Your task to perform on an android device: Check the weather Image 0: 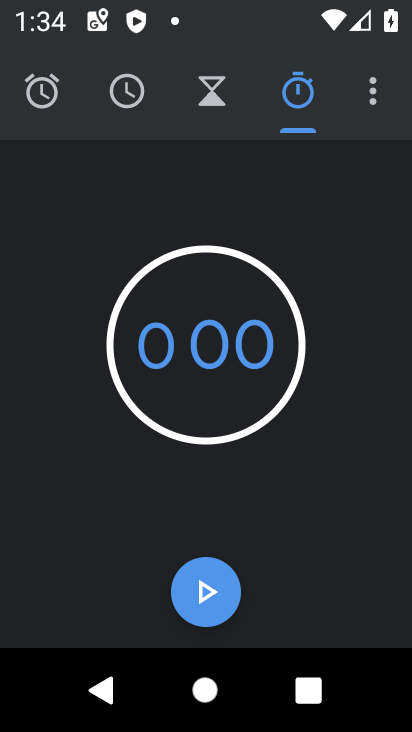
Step 0: press home button
Your task to perform on an android device: Check the weather Image 1: 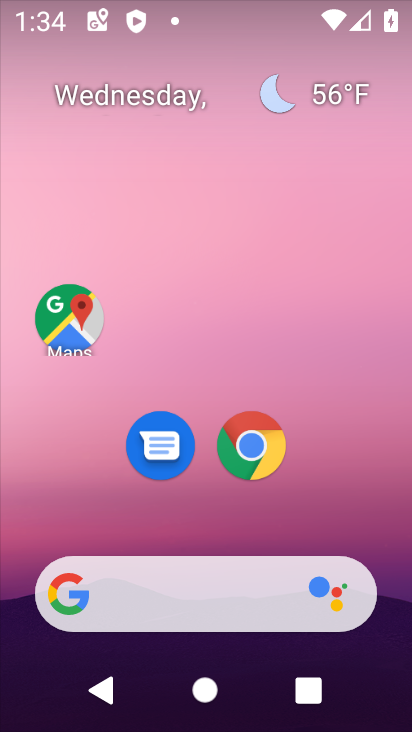
Step 1: click (226, 565)
Your task to perform on an android device: Check the weather Image 2: 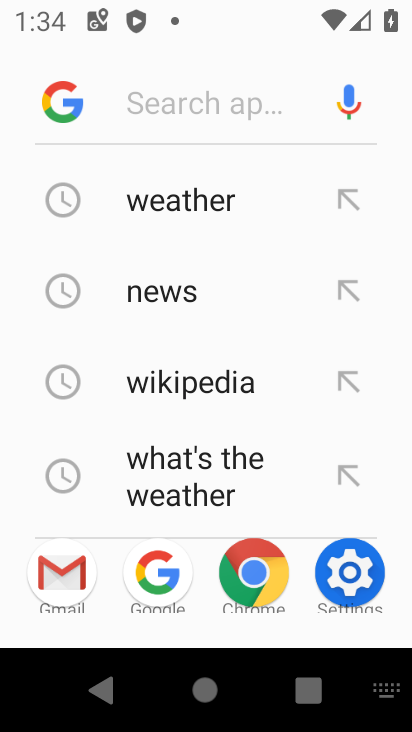
Step 2: click (163, 198)
Your task to perform on an android device: Check the weather Image 3: 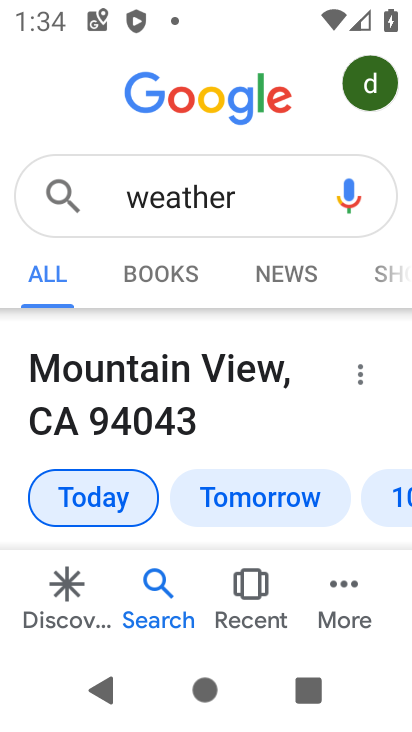
Step 3: task complete